Your task to perform on an android device: Do I have any events this weekend? Image 0: 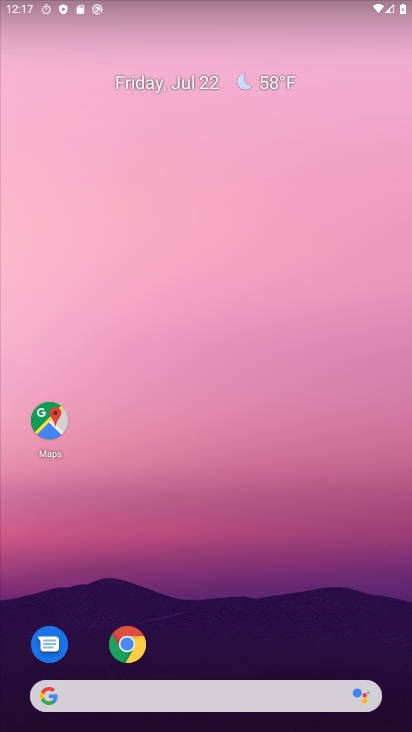
Step 0: drag from (192, 633) to (255, 50)
Your task to perform on an android device: Do I have any events this weekend? Image 1: 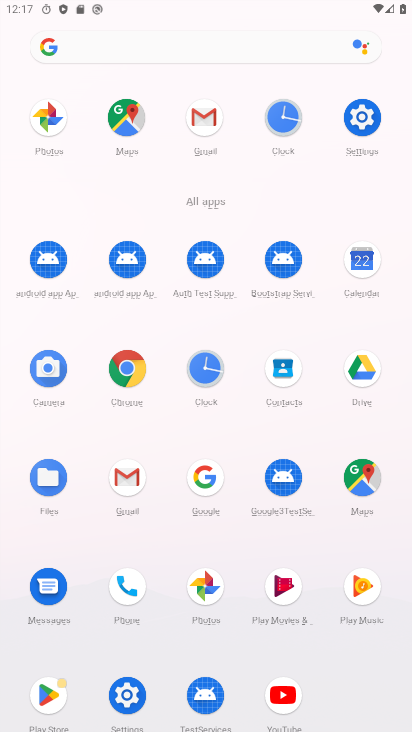
Step 1: click (356, 256)
Your task to perform on an android device: Do I have any events this weekend? Image 2: 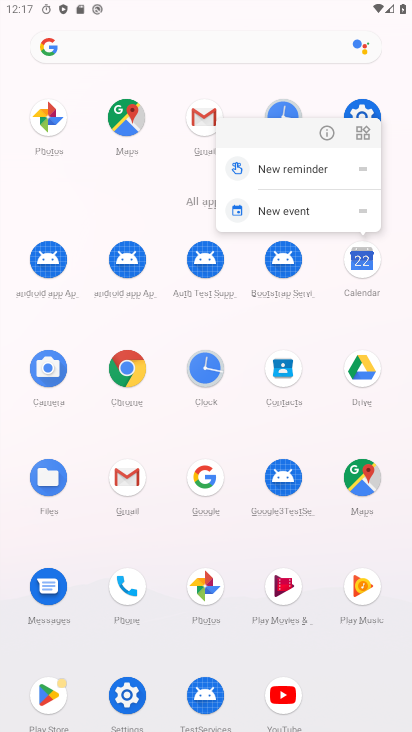
Step 2: click (325, 133)
Your task to perform on an android device: Do I have any events this weekend? Image 3: 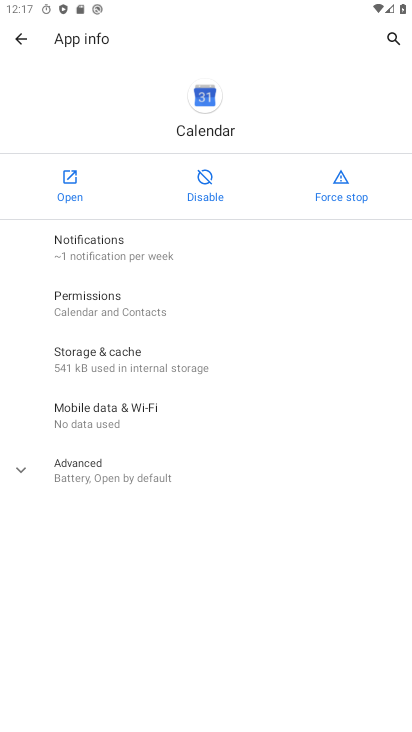
Step 3: click (60, 196)
Your task to perform on an android device: Do I have any events this weekend? Image 4: 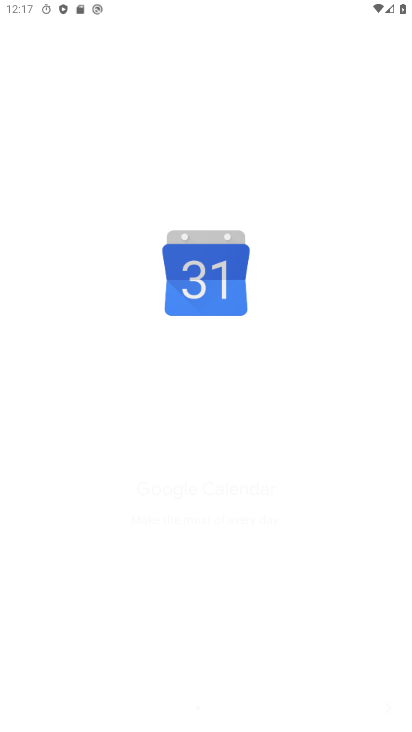
Step 4: click (71, 188)
Your task to perform on an android device: Do I have any events this weekend? Image 5: 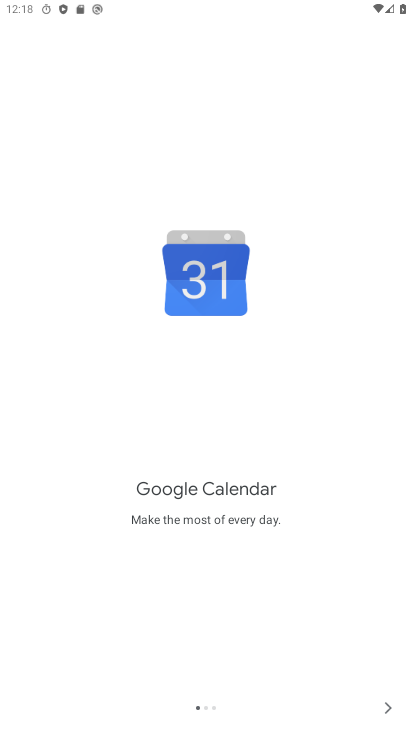
Step 5: click (390, 704)
Your task to perform on an android device: Do I have any events this weekend? Image 6: 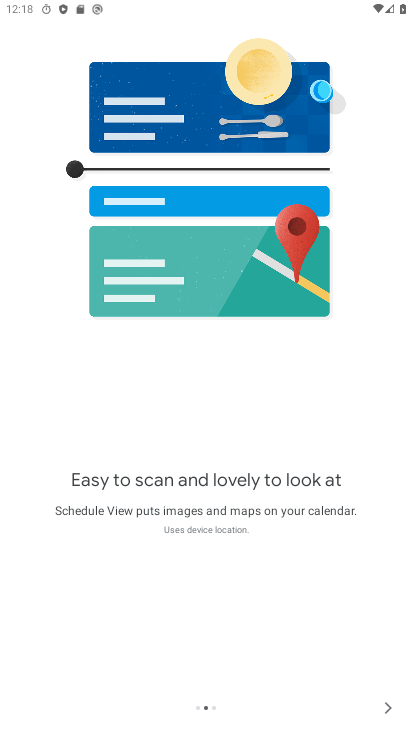
Step 6: click (381, 704)
Your task to perform on an android device: Do I have any events this weekend? Image 7: 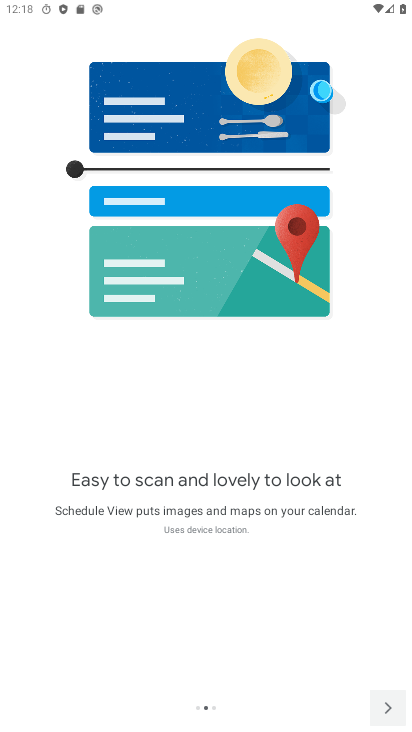
Step 7: click (381, 704)
Your task to perform on an android device: Do I have any events this weekend? Image 8: 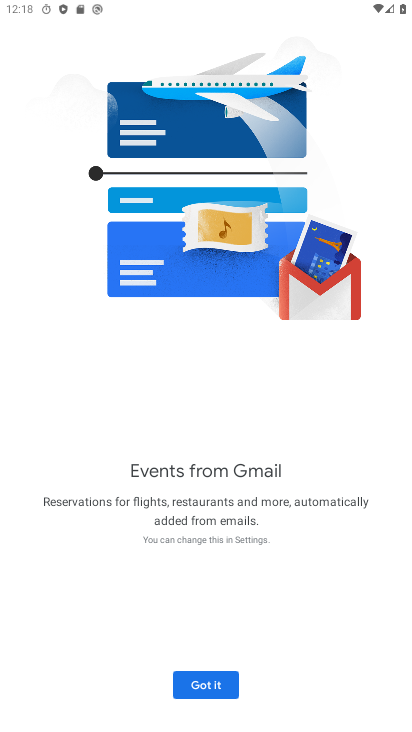
Step 8: click (381, 704)
Your task to perform on an android device: Do I have any events this weekend? Image 9: 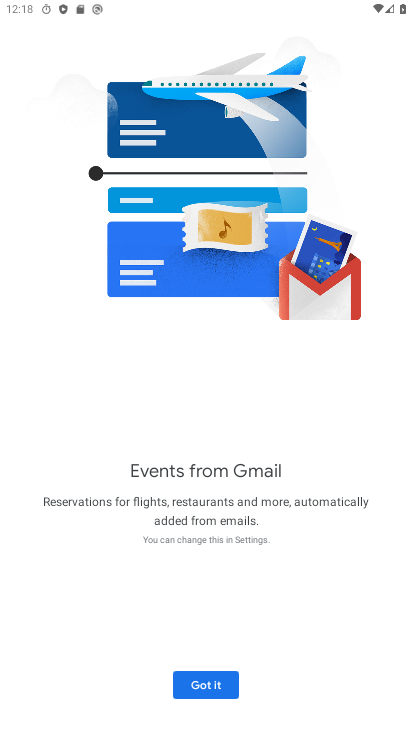
Step 9: click (176, 678)
Your task to perform on an android device: Do I have any events this weekend? Image 10: 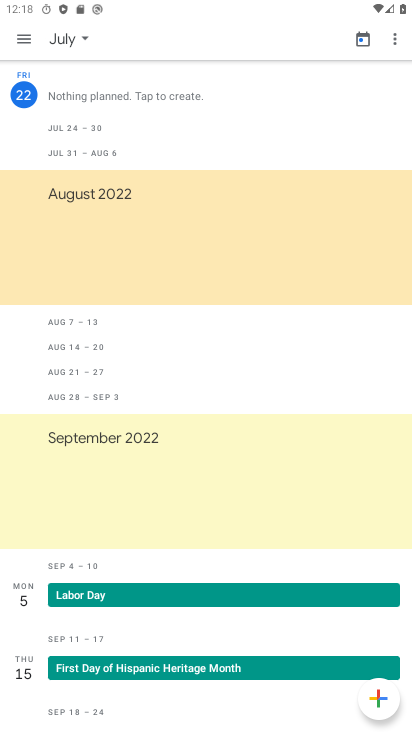
Step 10: click (84, 33)
Your task to perform on an android device: Do I have any events this weekend? Image 11: 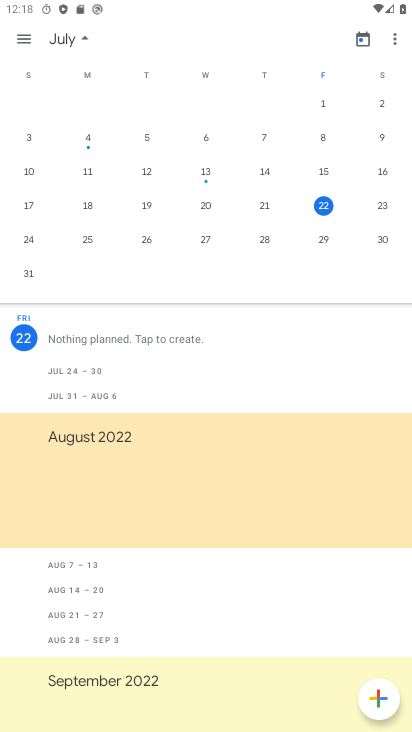
Step 11: click (380, 206)
Your task to perform on an android device: Do I have any events this weekend? Image 12: 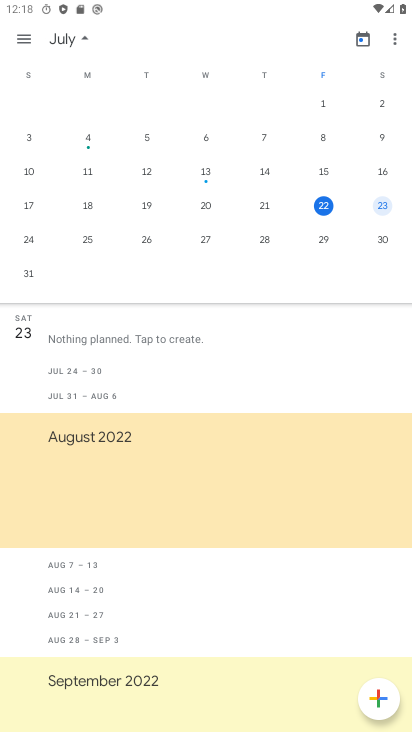
Step 12: task complete